Your task to perform on an android device: Open the stopwatch Image 0: 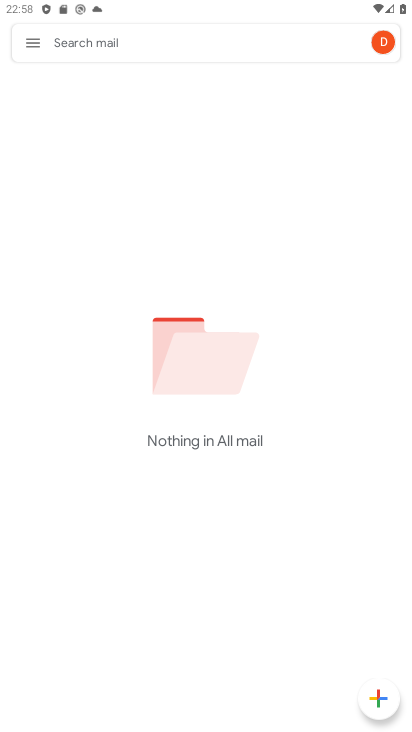
Step 0: press home button
Your task to perform on an android device: Open the stopwatch Image 1: 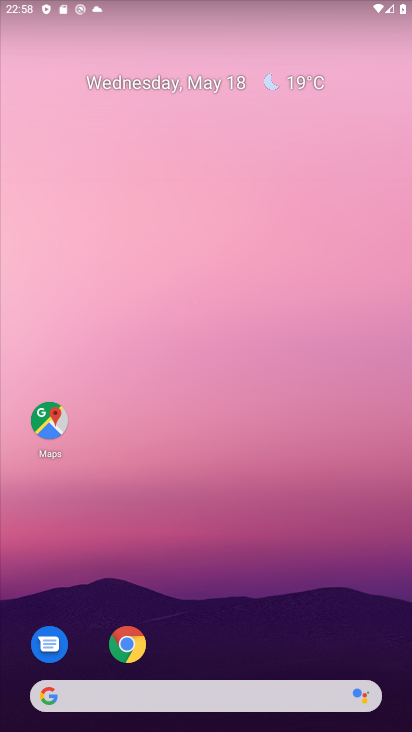
Step 1: drag from (332, 520) to (312, 181)
Your task to perform on an android device: Open the stopwatch Image 2: 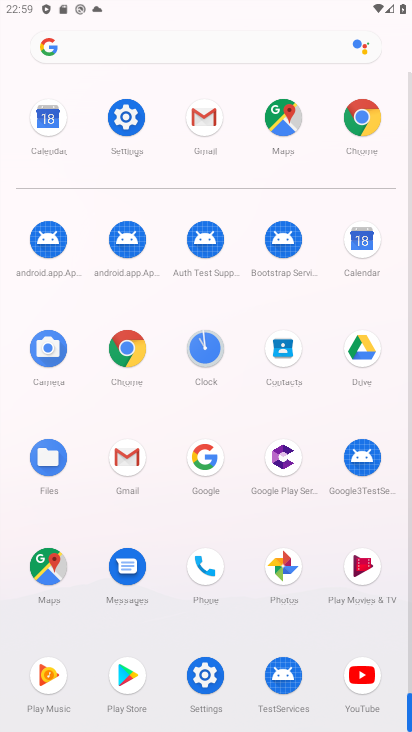
Step 2: click (213, 347)
Your task to perform on an android device: Open the stopwatch Image 3: 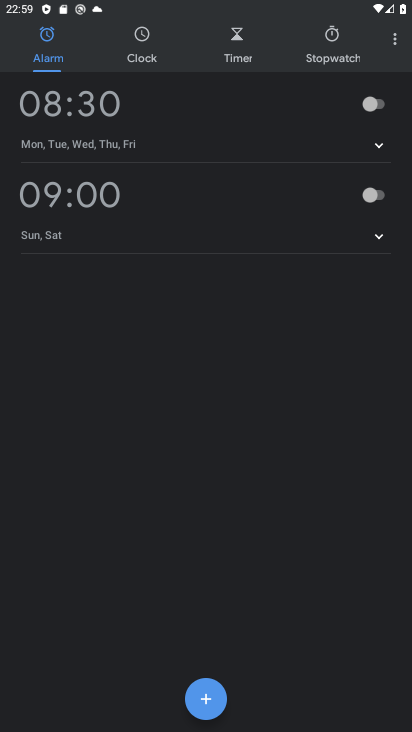
Step 3: click (334, 36)
Your task to perform on an android device: Open the stopwatch Image 4: 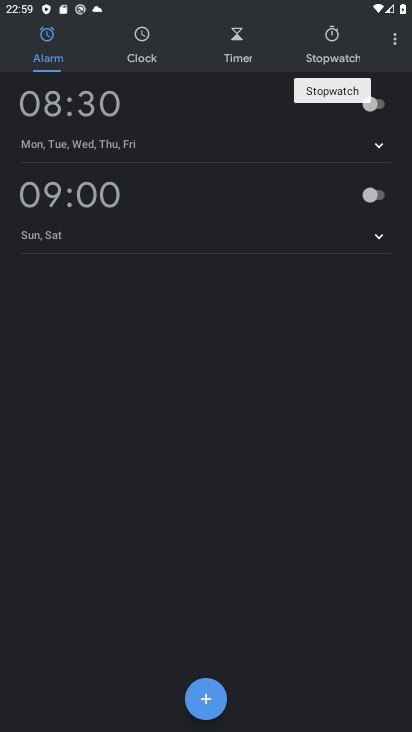
Step 4: click (334, 36)
Your task to perform on an android device: Open the stopwatch Image 5: 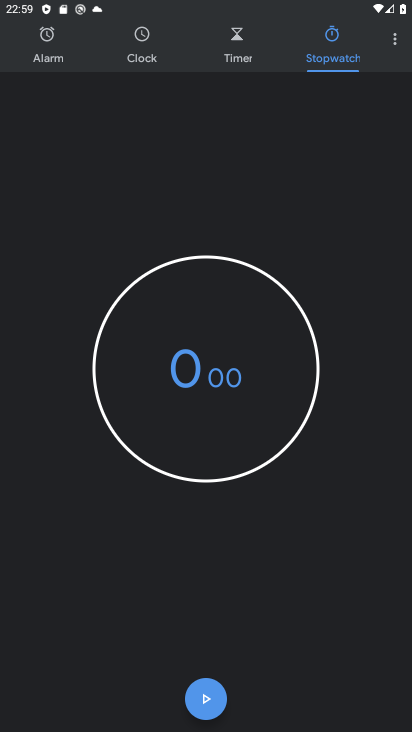
Step 5: task complete